Your task to perform on an android device: toggle translation in the chrome app Image 0: 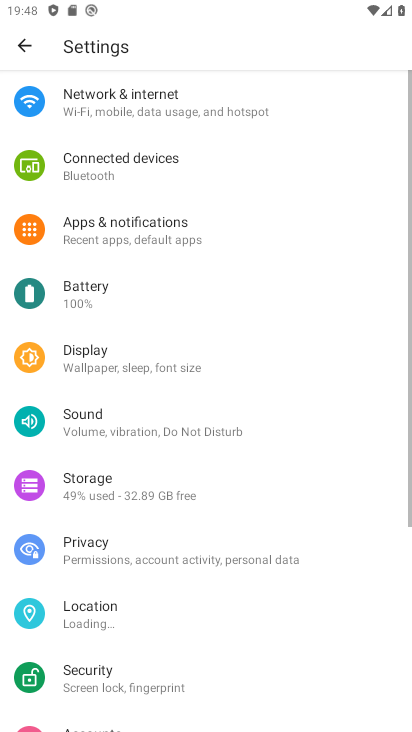
Step 0: press home button
Your task to perform on an android device: toggle translation in the chrome app Image 1: 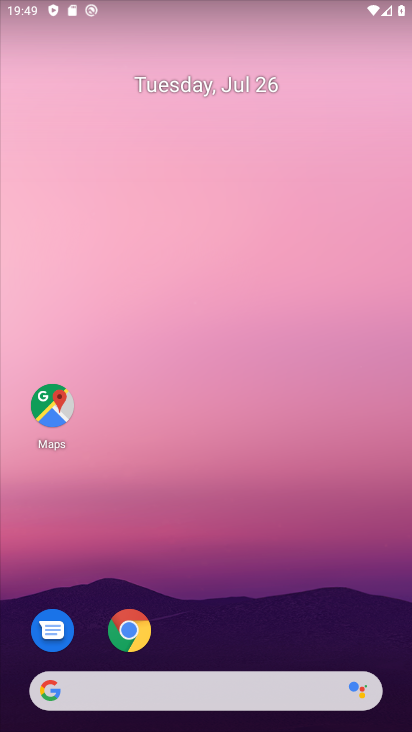
Step 1: drag from (354, 567) to (357, 167)
Your task to perform on an android device: toggle translation in the chrome app Image 2: 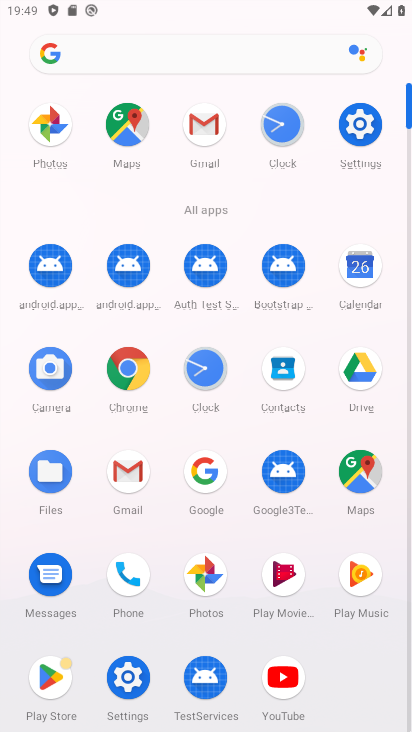
Step 2: click (130, 375)
Your task to perform on an android device: toggle translation in the chrome app Image 3: 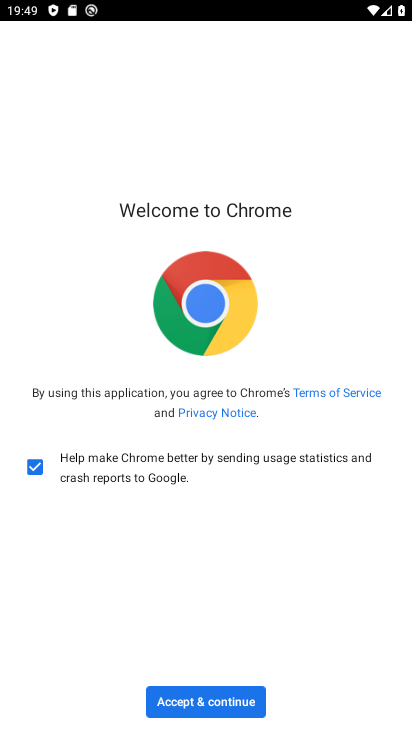
Step 3: click (187, 694)
Your task to perform on an android device: toggle translation in the chrome app Image 4: 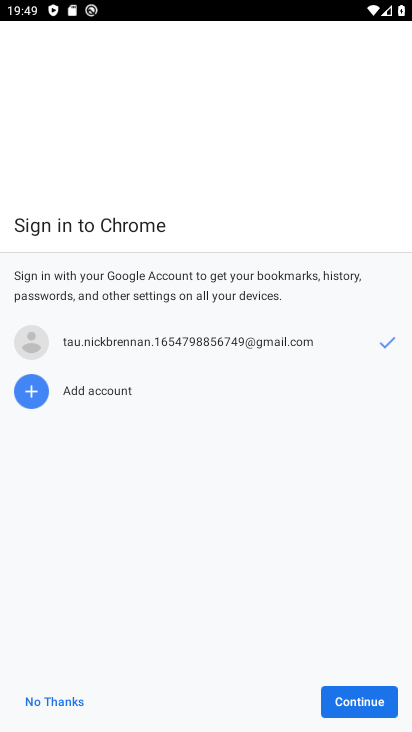
Step 4: click (369, 697)
Your task to perform on an android device: toggle translation in the chrome app Image 5: 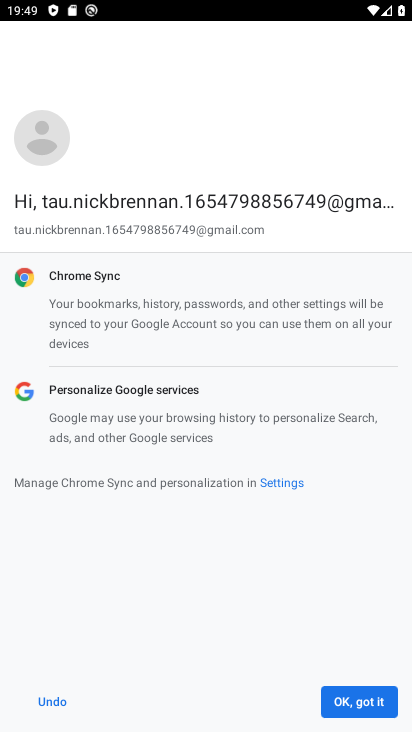
Step 5: click (358, 706)
Your task to perform on an android device: toggle translation in the chrome app Image 6: 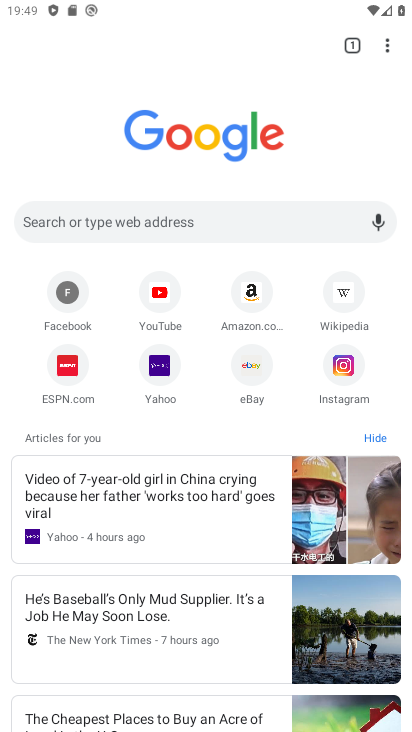
Step 6: click (387, 46)
Your task to perform on an android device: toggle translation in the chrome app Image 7: 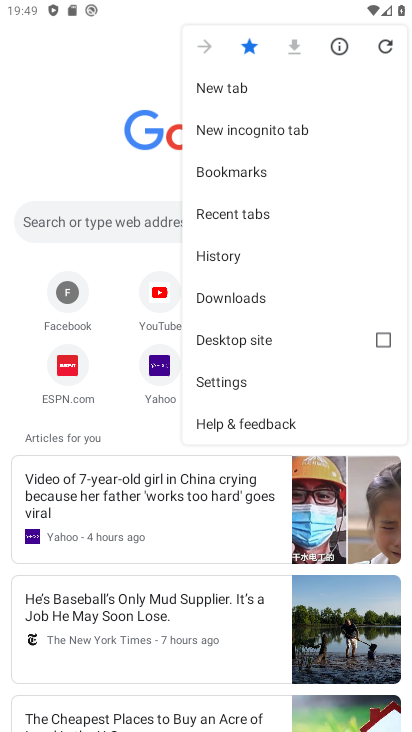
Step 7: click (237, 385)
Your task to perform on an android device: toggle translation in the chrome app Image 8: 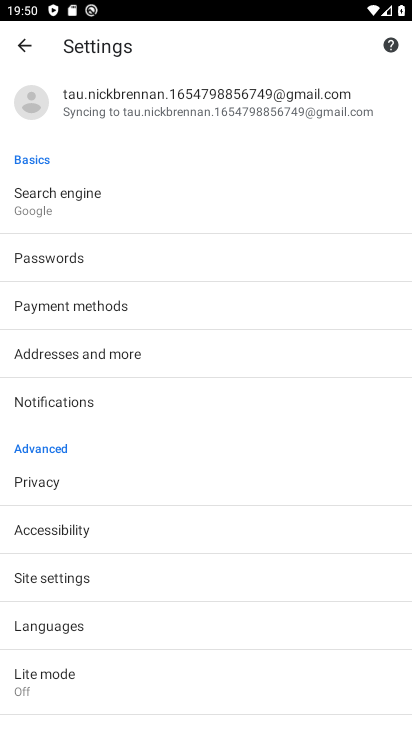
Step 8: click (161, 624)
Your task to perform on an android device: toggle translation in the chrome app Image 9: 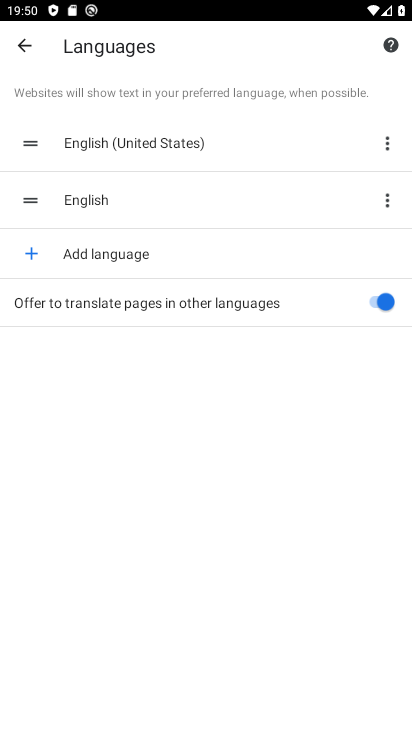
Step 9: click (376, 306)
Your task to perform on an android device: toggle translation in the chrome app Image 10: 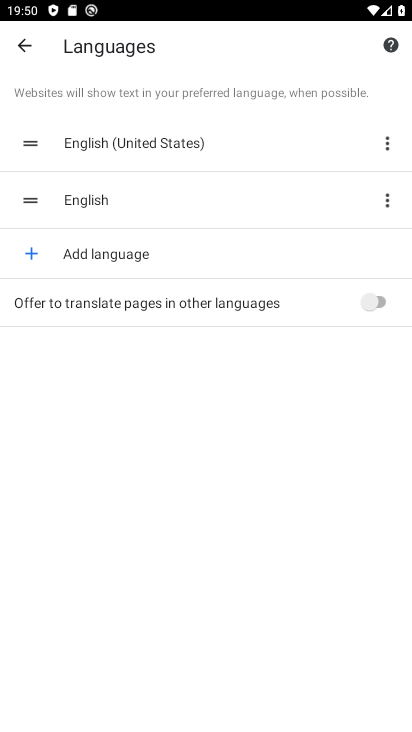
Step 10: task complete